Your task to perform on an android device: Open ESPN.com Image 0: 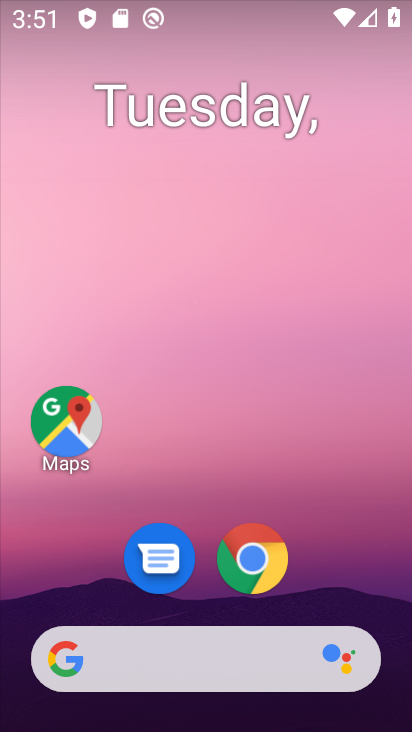
Step 0: click (281, 572)
Your task to perform on an android device: Open ESPN.com Image 1: 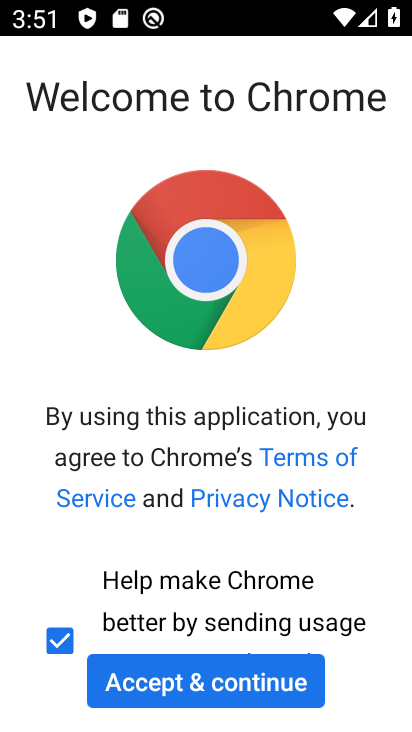
Step 1: click (185, 683)
Your task to perform on an android device: Open ESPN.com Image 2: 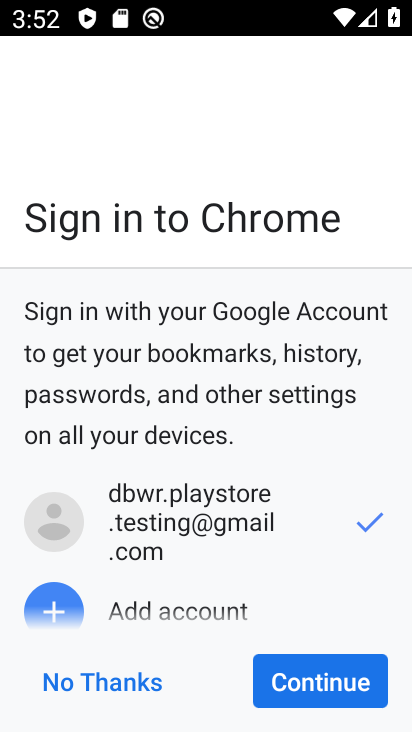
Step 2: click (348, 696)
Your task to perform on an android device: Open ESPN.com Image 3: 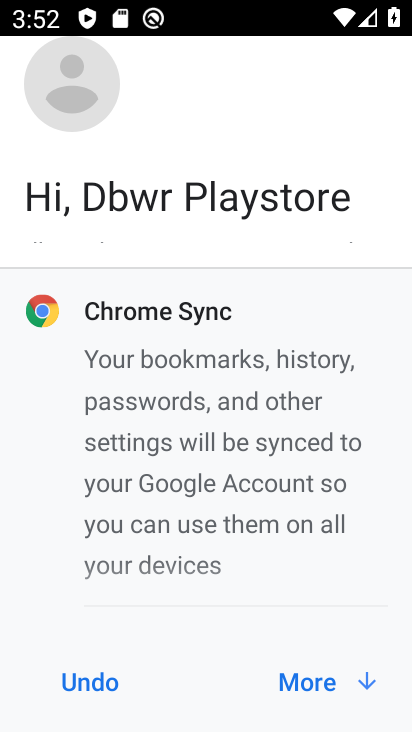
Step 3: click (327, 683)
Your task to perform on an android device: Open ESPN.com Image 4: 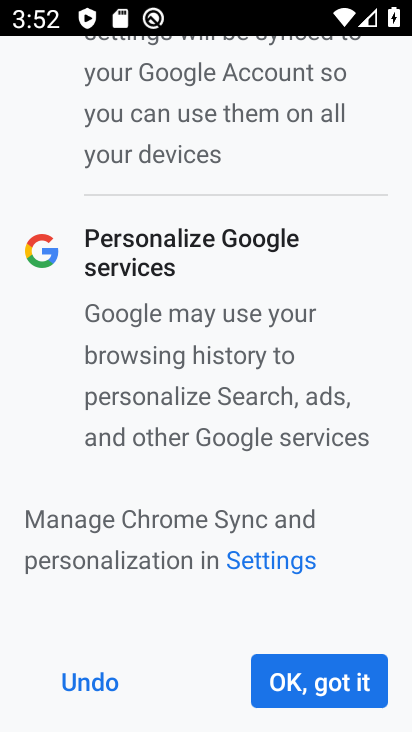
Step 4: click (340, 675)
Your task to perform on an android device: Open ESPN.com Image 5: 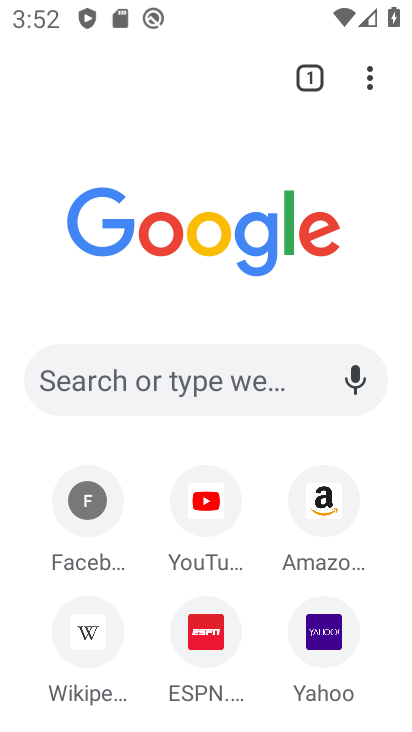
Step 5: click (222, 620)
Your task to perform on an android device: Open ESPN.com Image 6: 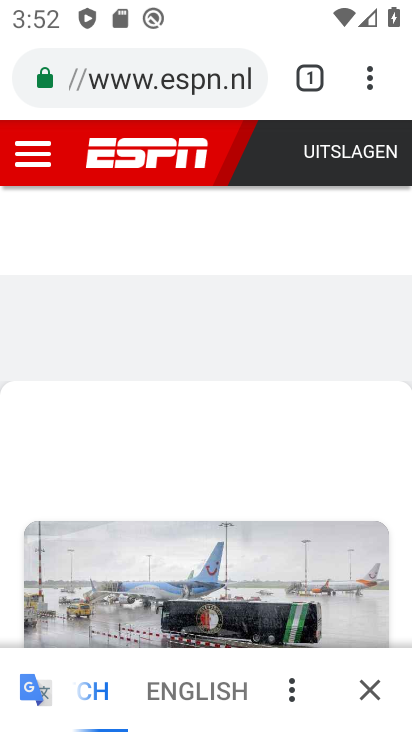
Step 6: task complete